Your task to perform on an android device: turn off airplane mode Image 0: 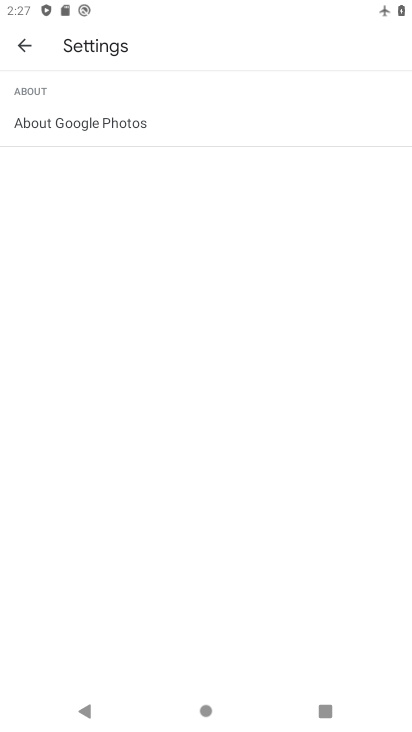
Step 0: press home button
Your task to perform on an android device: turn off airplane mode Image 1: 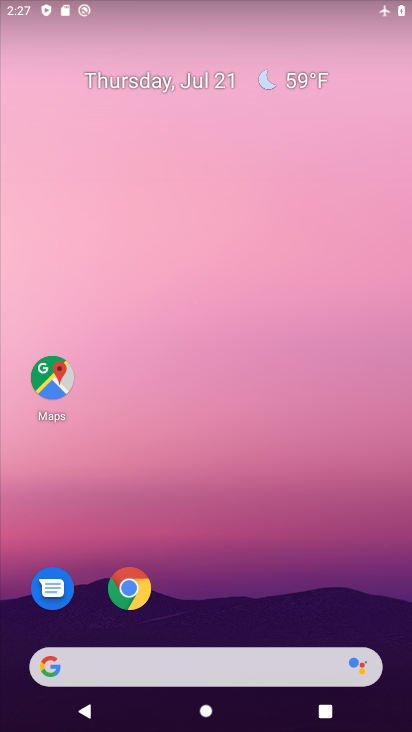
Step 1: drag from (403, 717) to (408, 172)
Your task to perform on an android device: turn off airplane mode Image 2: 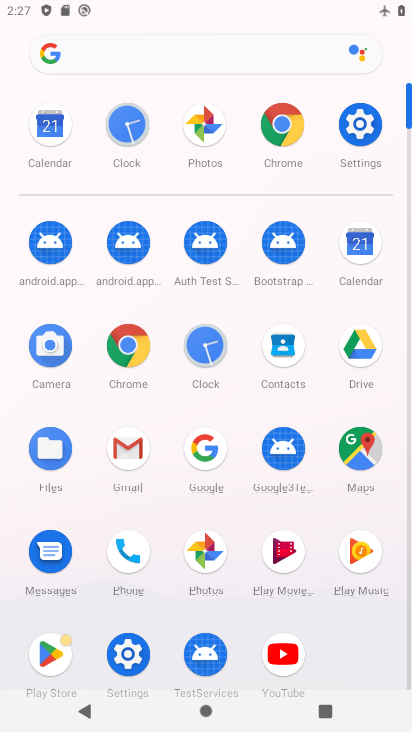
Step 2: click (363, 131)
Your task to perform on an android device: turn off airplane mode Image 3: 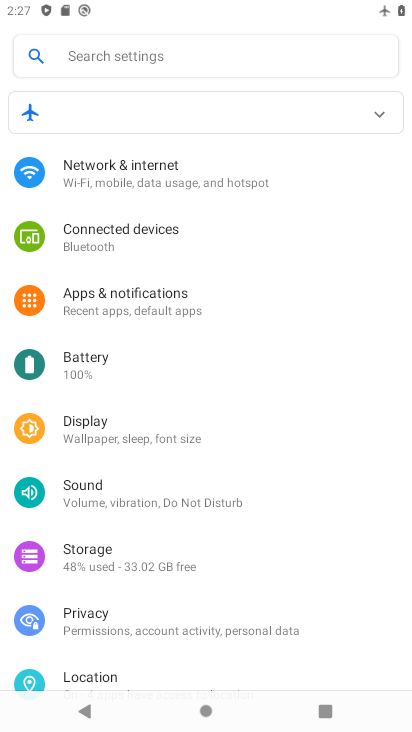
Step 3: click (156, 172)
Your task to perform on an android device: turn off airplane mode Image 4: 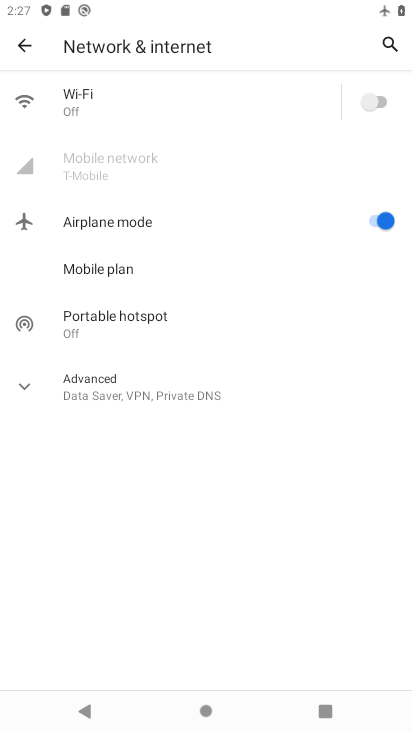
Step 4: click (378, 212)
Your task to perform on an android device: turn off airplane mode Image 5: 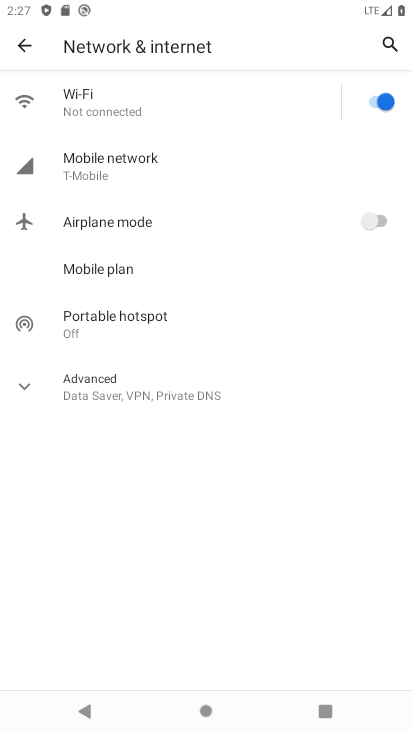
Step 5: task complete